Your task to perform on an android device: create a new album in the google photos Image 0: 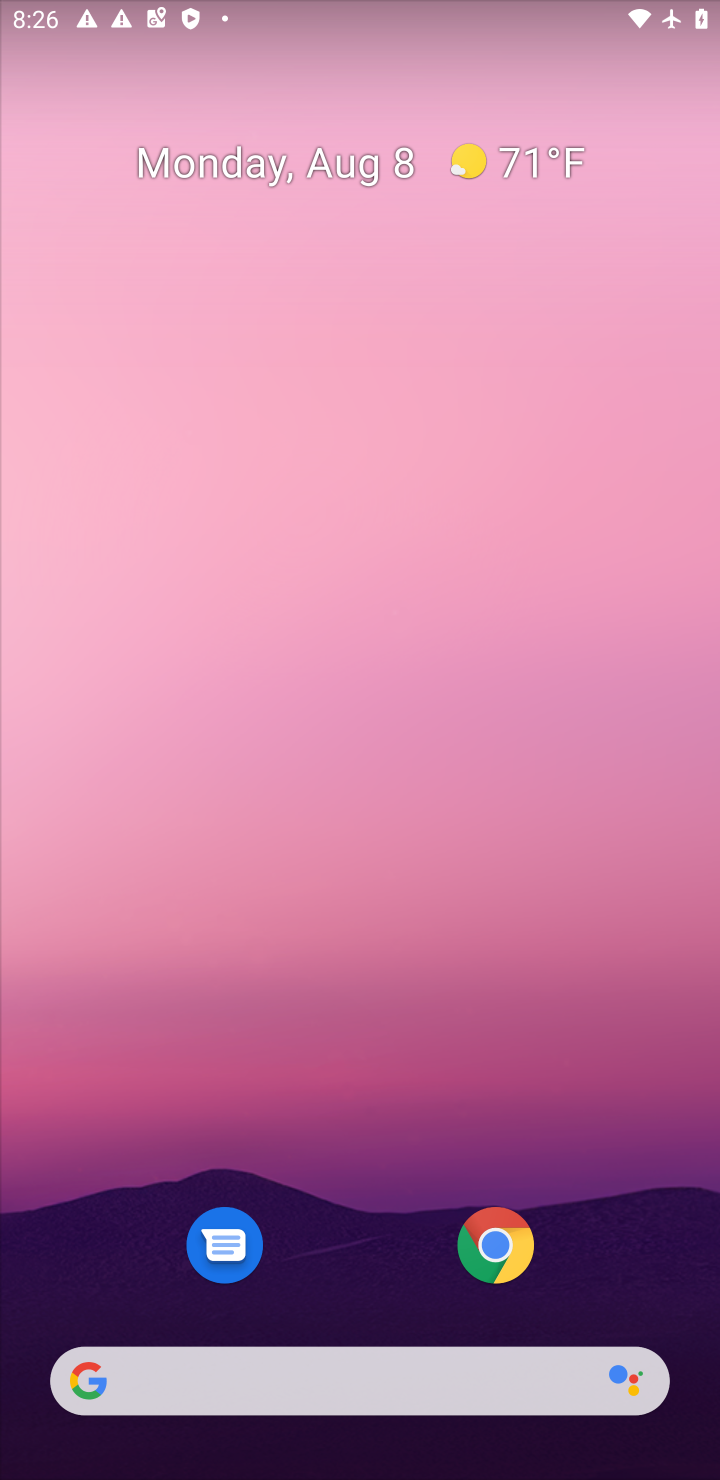
Step 0: drag from (371, 1258) to (435, 17)
Your task to perform on an android device: create a new album in the google photos Image 1: 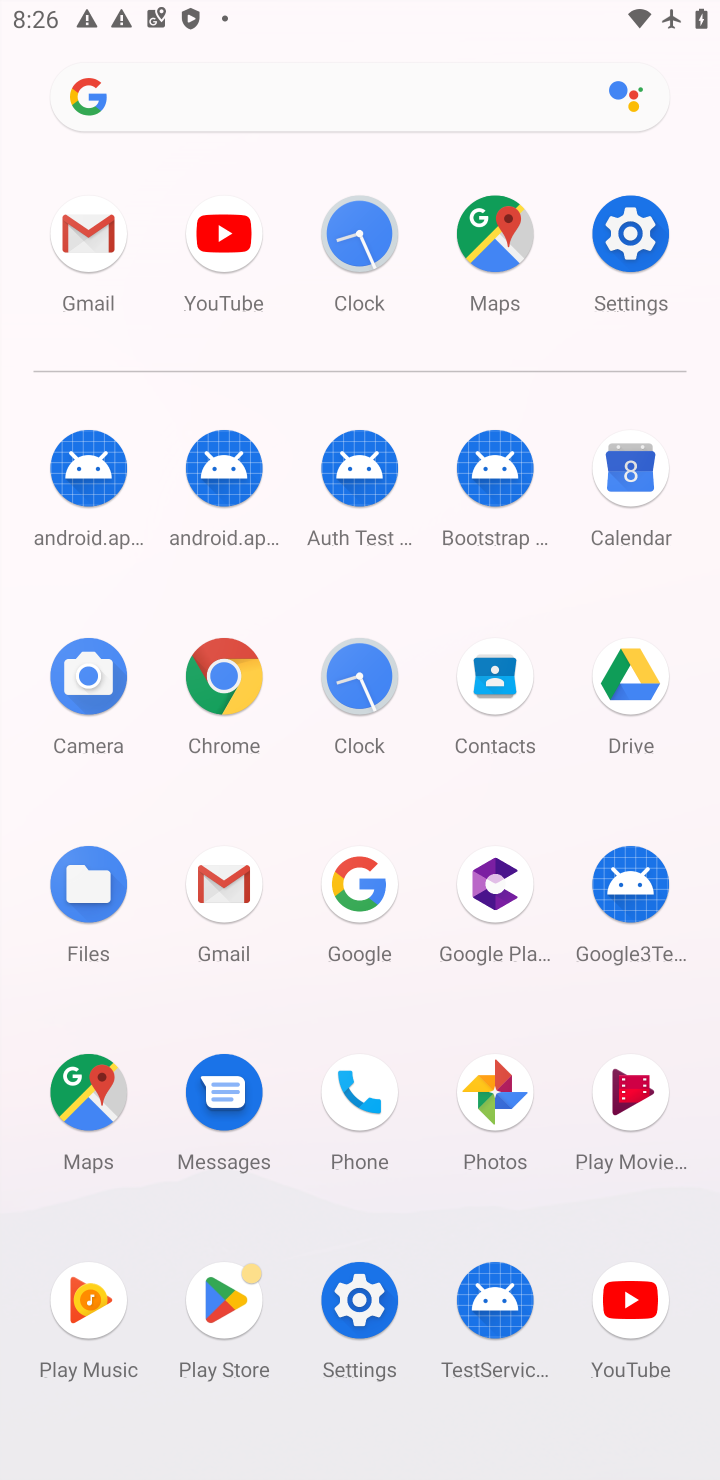
Step 1: click (503, 1142)
Your task to perform on an android device: create a new album in the google photos Image 2: 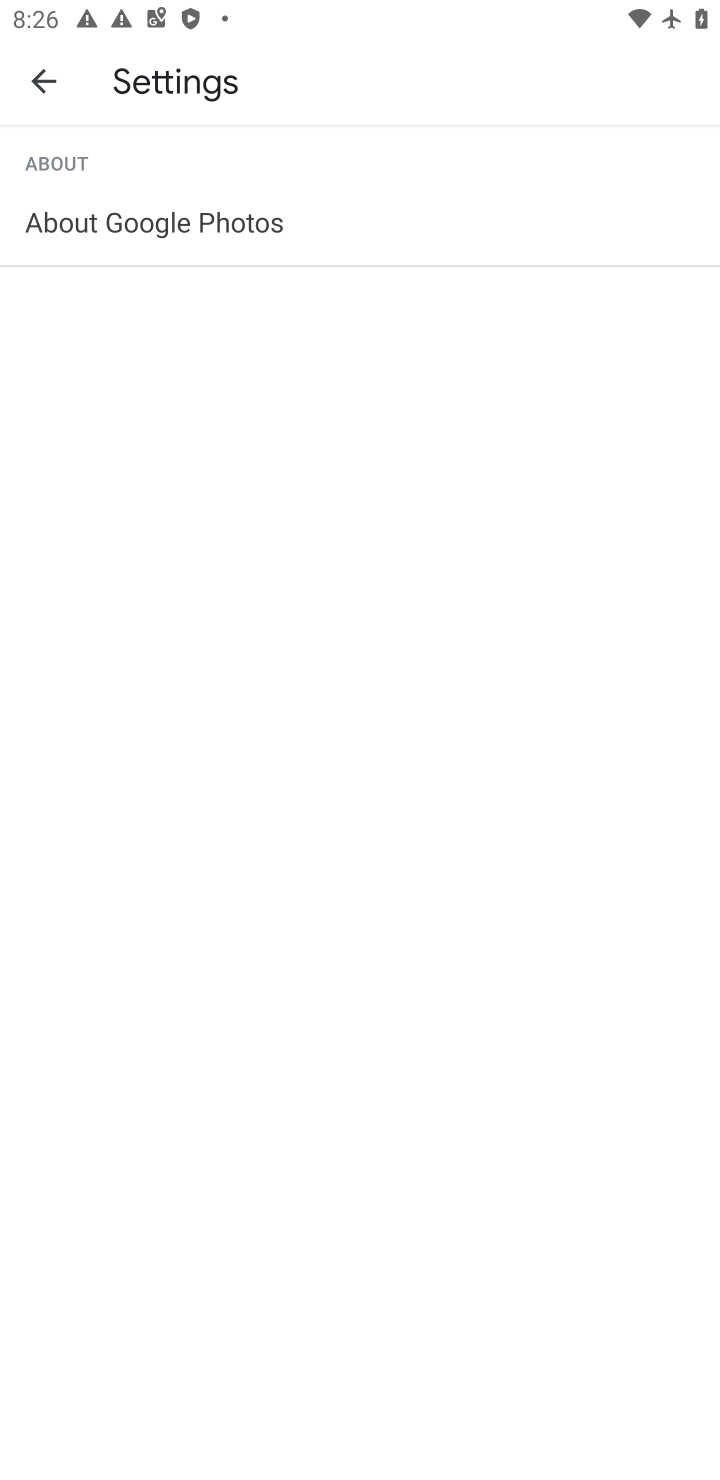
Step 2: click (36, 79)
Your task to perform on an android device: create a new album in the google photos Image 3: 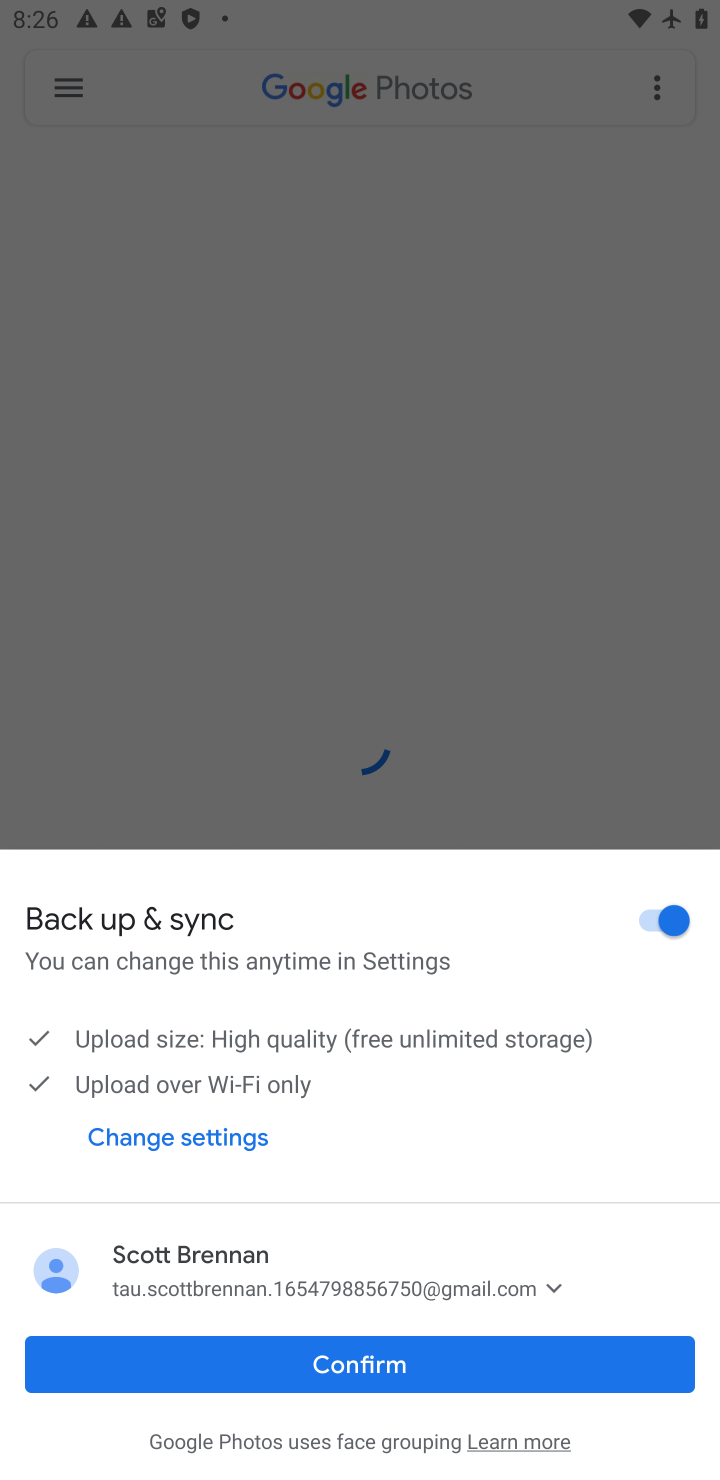
Step 3: click (430, 1369)
Your task to perform on an android device: create a new album in the google photos Image 4: 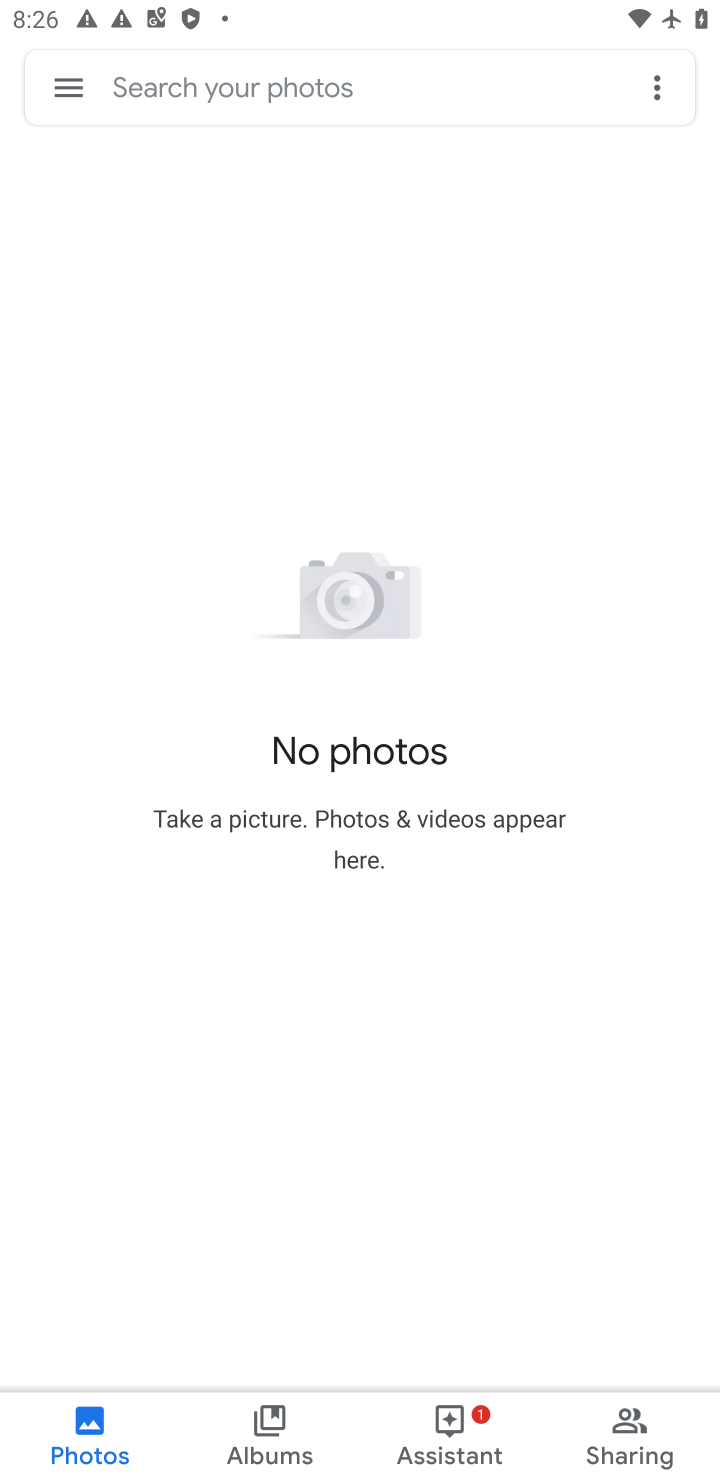
Step 4: click (259, 1450)
Your task to perform on an android device: create a new album in the google photos Image 5: 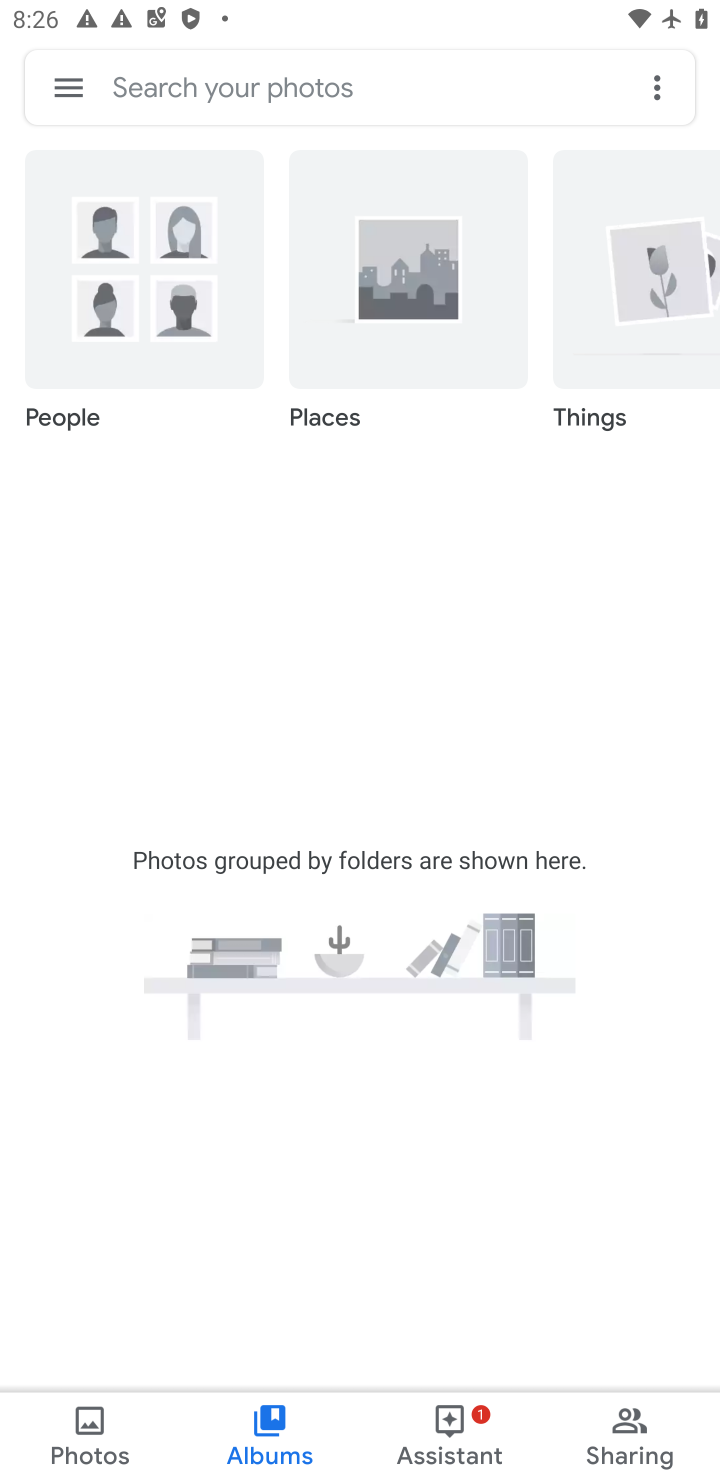
Step 5: click (363, 826)
Your task to perform on an android device: create a new album in the google photos Image 6: 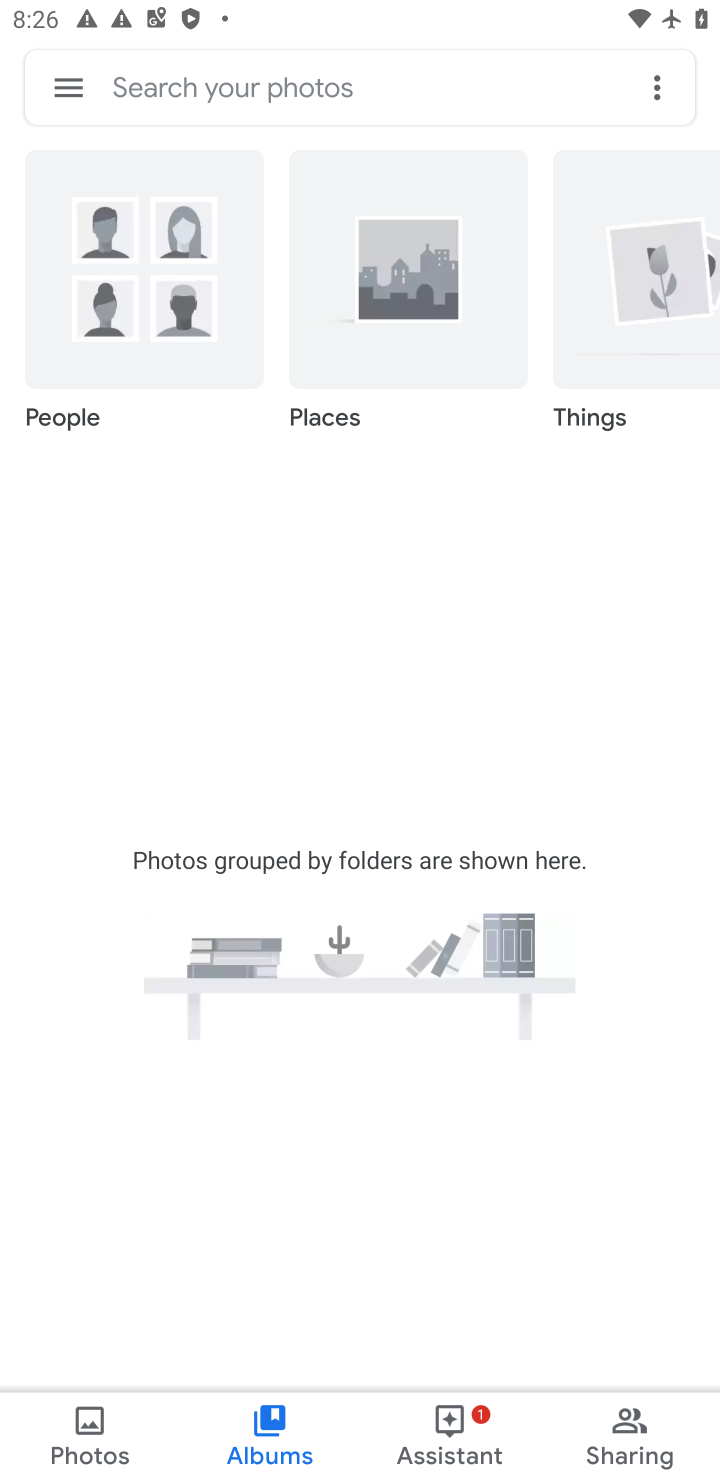
Step 6: task complete